Your task to perform on an android device: Open display settings Image 0: 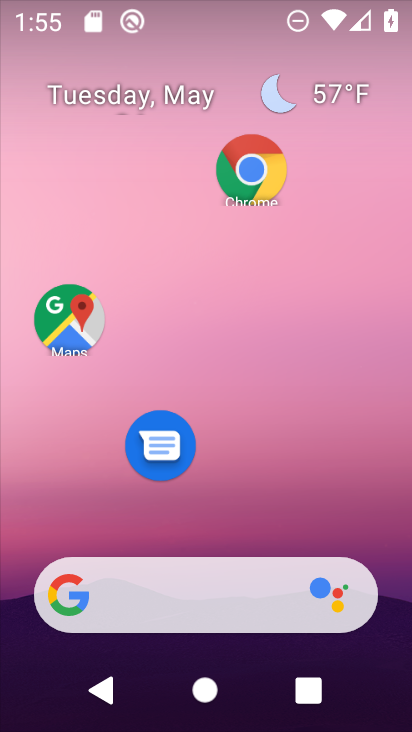
Step 0: drag from (247, 722) to (266, 183)
Your task to perform on an android device: Open display settings Image 1: 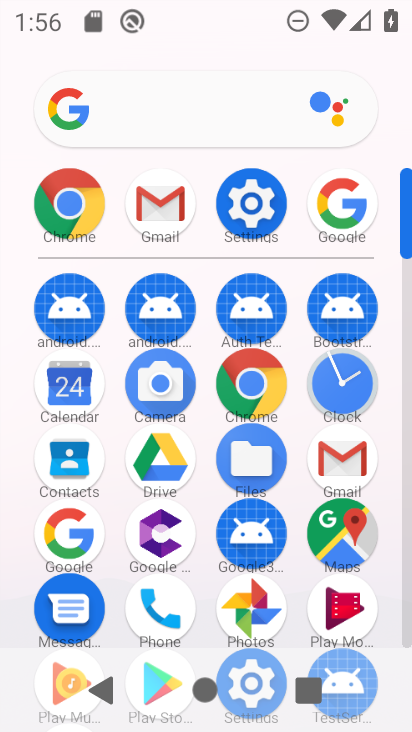
Step 1: click (253, 193)
Your task to perform on an android device: Open display settings Image 2: 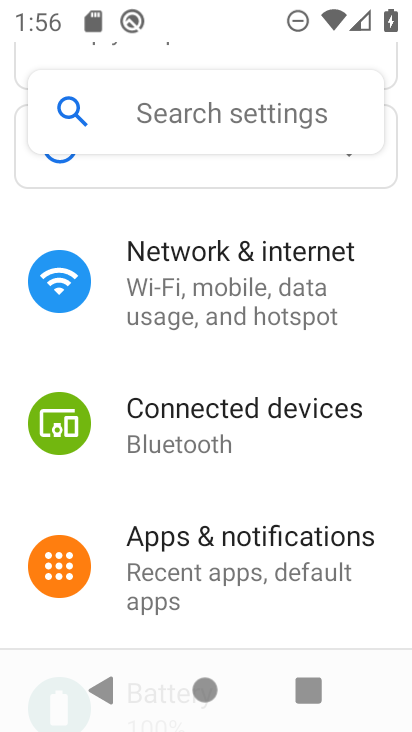
Step 2: drag from (272, 608) to (266, 222)
Your task to perform on an android device: Open display settings Image 3: 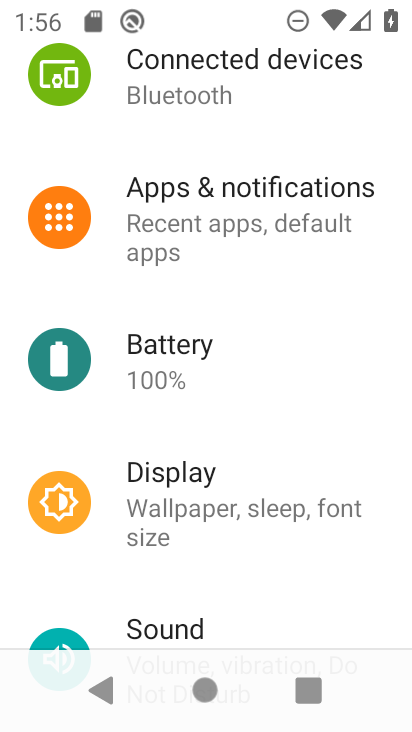
Step 3: click (154, 494)
Your task to perform on an android device: Open display settings Image 4: 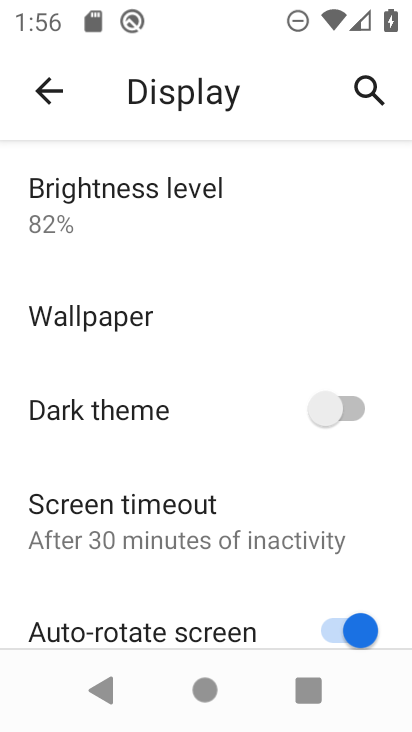
Step 4: task complete